Your task to perform on an android device: turn off smart reply in the gmail app Image 0: 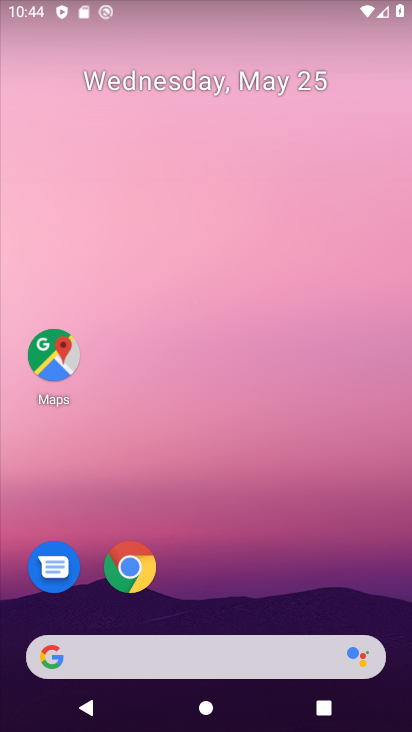
Step 0: drag from (198, 580) to (187, 48)
Your task to perform on an android device: turn off smart reply in the gmail app Image 1: 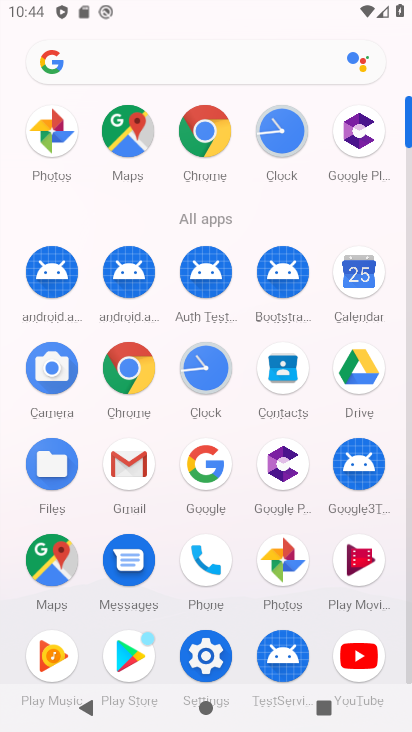
Step 1: click (251, 609)
Your task to perform on an android device: turn off smart reply in the gmail app Image 2: 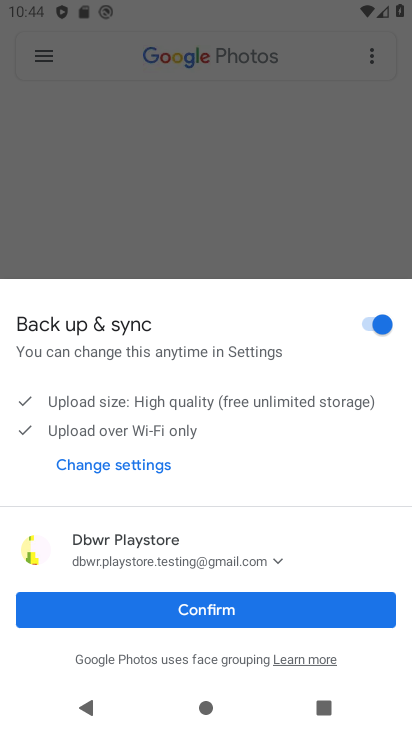
Step 2: press home button
Your task to perform on an android device: turn off smart reply in the gmail app Image 3: 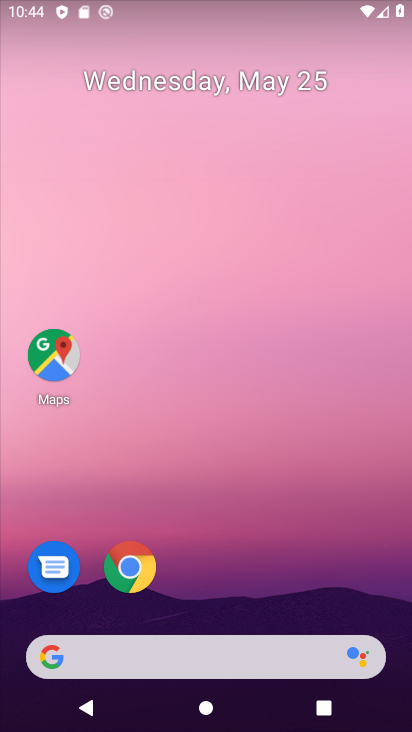
Step 3: drag from (265, 586) to (244, 134)
Your task to perform on an android device: turn off smart reply in the gmail app Image 4: 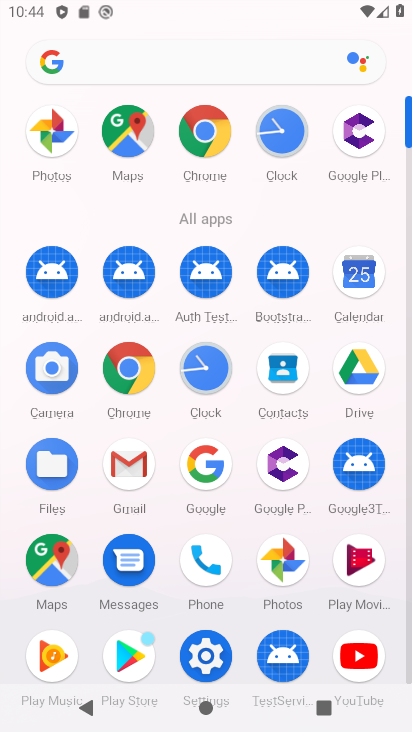
Step 4: click (122, 478)
Your task to perform on an android device: turn off smart reply in the gmail app Image 5: 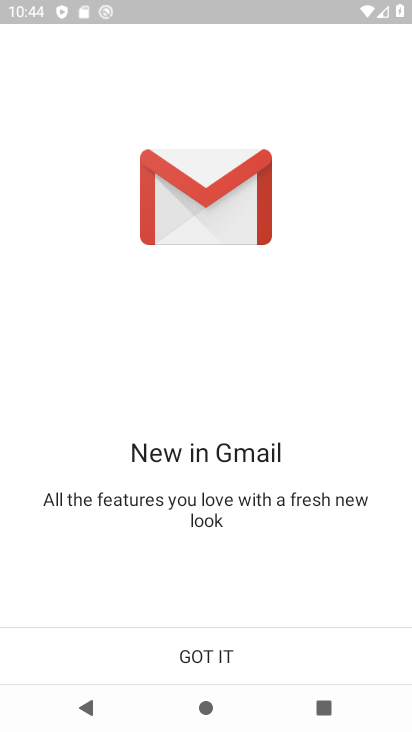
Step 5: click (245, 653)
Your task to perform on an android device: turn off smart reply in the gmail app Image 6: 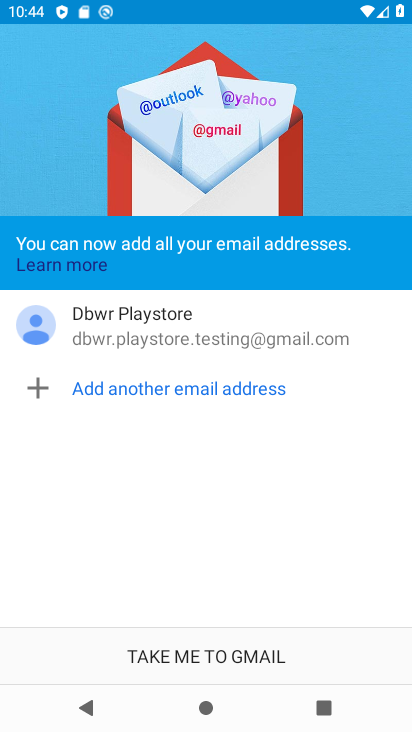
Step 6: click (241, 651)
Your task to perform on an android device: turn off smart reply in the gmail app Image 7: 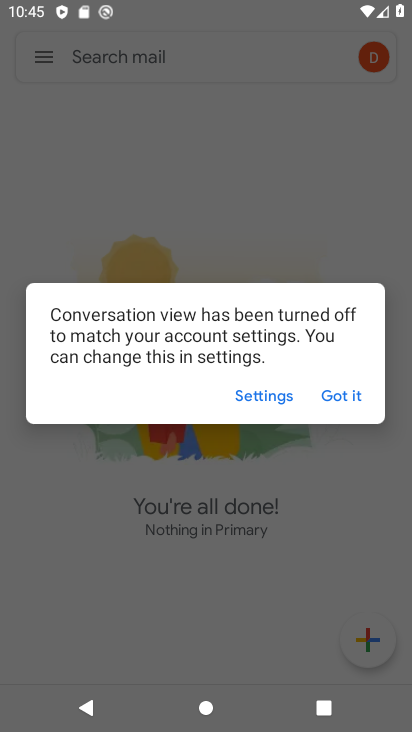
Step 7: click (329, 395)
Your task to perform on an android device: turn off smart reply in the gmail app Image 8: 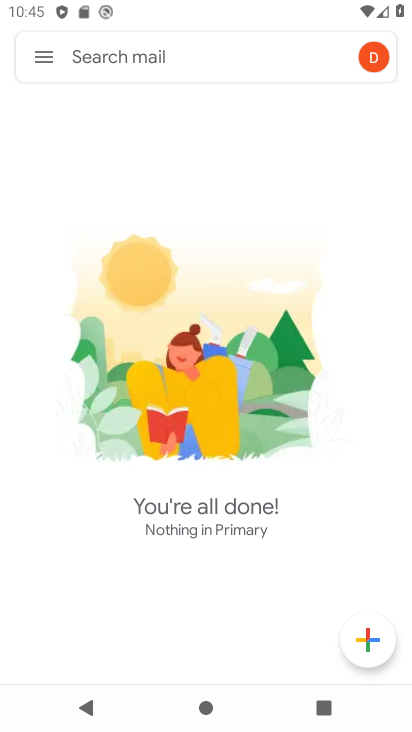
Step 8: click (41, 55)
Your task to perform on an android device: turn off smart reply in the gmail app Image 9: 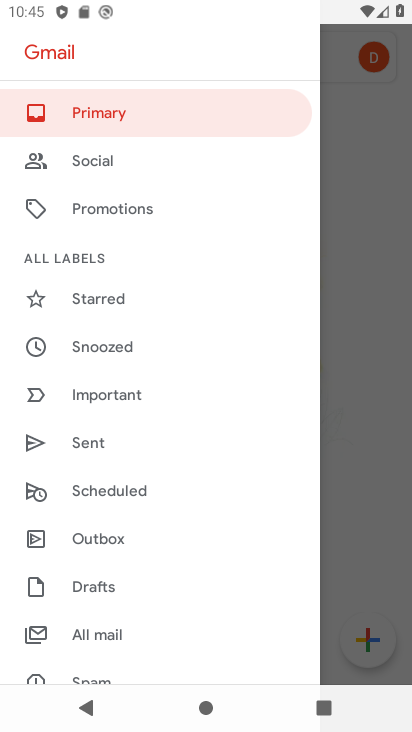
Step 9: drag from (123, 656) to (80, 285)
Your task to perform on an android device: turn off smart reply in the gmail app Image 10: 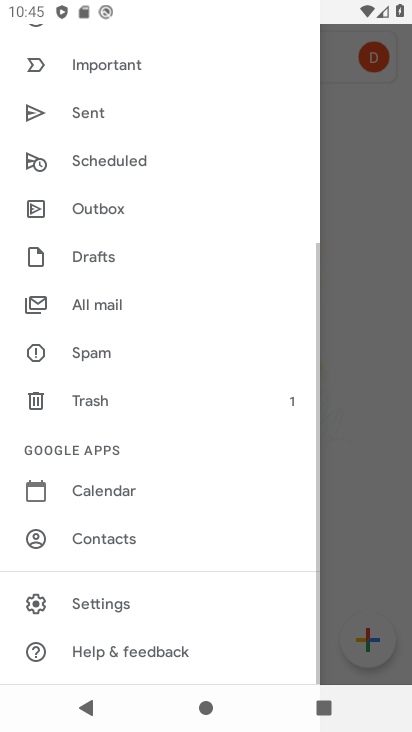
Step 10: click (129, 600)
Your task to perform on an android device: turn off smart reply in the gmail app Image 11: 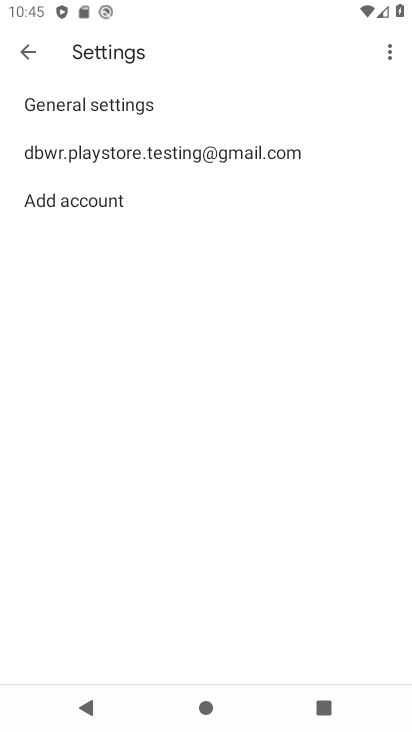
Step 11: click (109, 150)
Your task to perform on an android device: turn off smart reply in the gmail app Image 12: 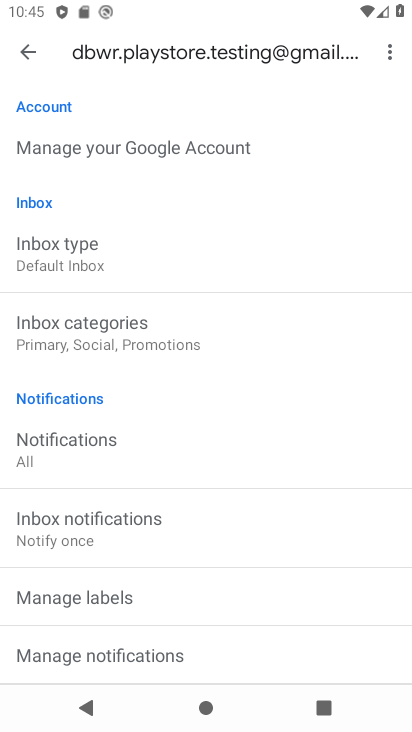
Step 12: drag from (145, 599) to (129, 65)
Your task to perform on an android device: turn off smart reply in the gmail app Image 13: 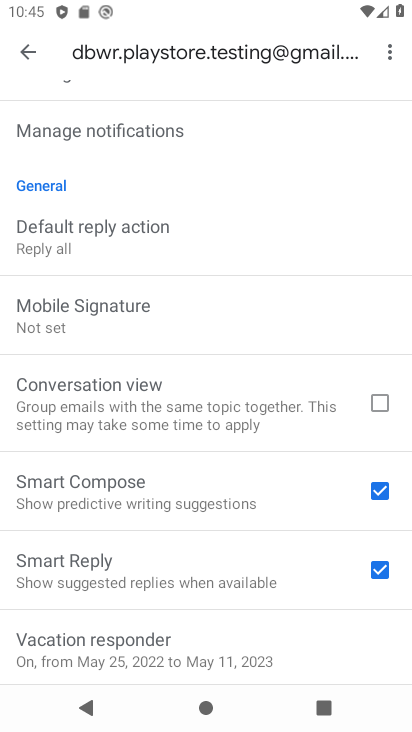
Step 13: click (378, 572)
Your task to perform on an android device: turn off smart reply in the gmail app Image 14: 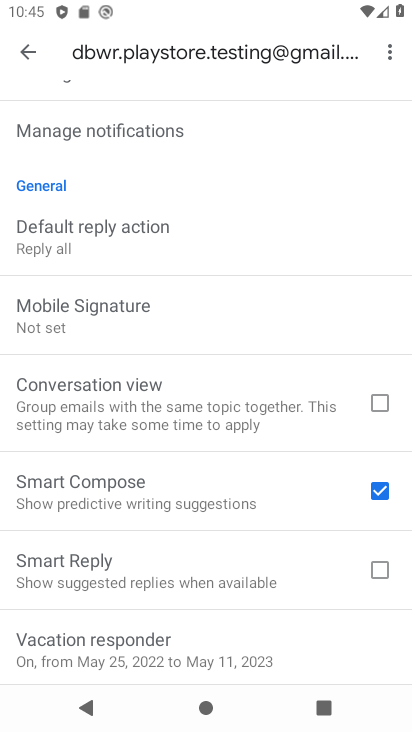
Step 14: task complete